Your task to perform on an android device: turn on showing notifications on the lock screen Image 0: 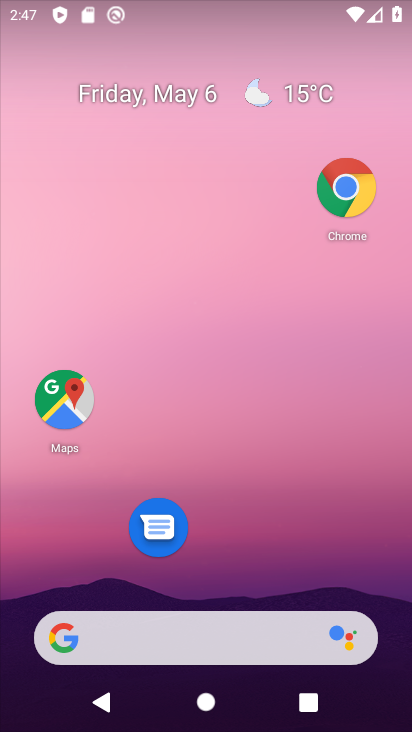
Step 0: drag from (286, 552) to (280, 51)
Your task to perform on an android device: turn on showing notifications on the lock screen Image 1: 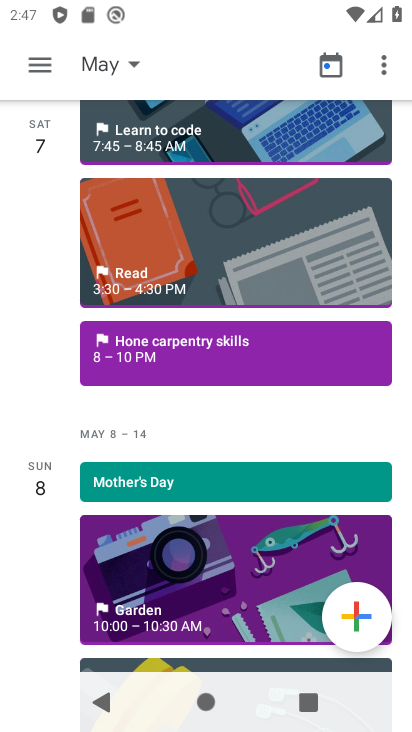
Step 1: press home button
Your task to perform on an android device: turn on showing notifications on the lock screen Image 2: 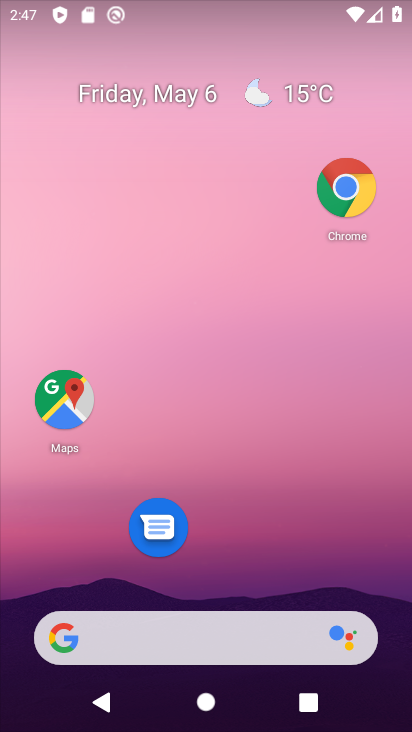
Step 2: click (286, 44)
Your task to perform on an android device: turn on showing notifications on the lock screen Image 3: 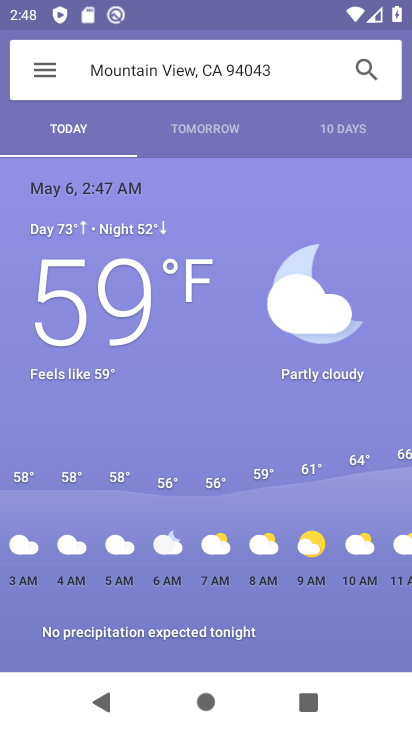
Step 3: press home button
Your task to perform on an android device: turn on showing notifications on the lock screen Image 4: 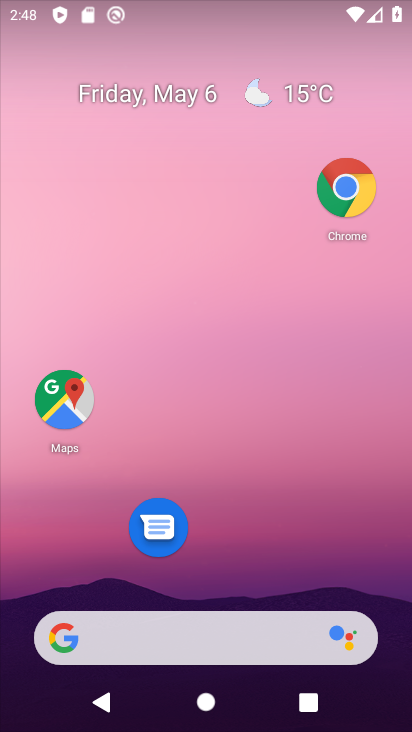
Step 4: drag from (268, 132) to (262, 38)
Your task to perform on an android device: turn on showing notifications on the lock screen Image 5: 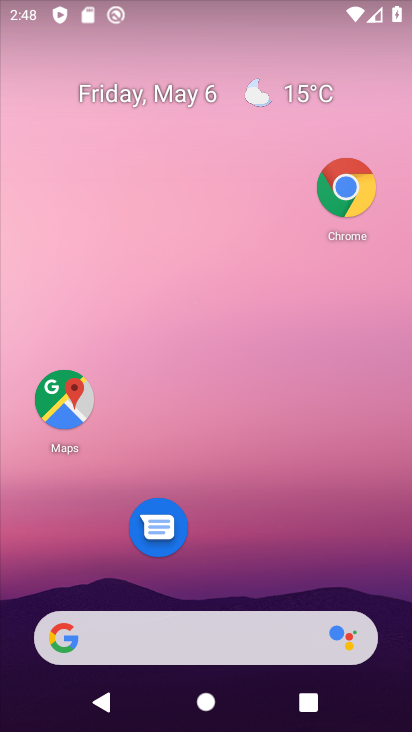
Step 5: drag from (176, 200) to (257, 4)
Your task to perform on an android device: turn on showing notifications on the lock screen Image 6: 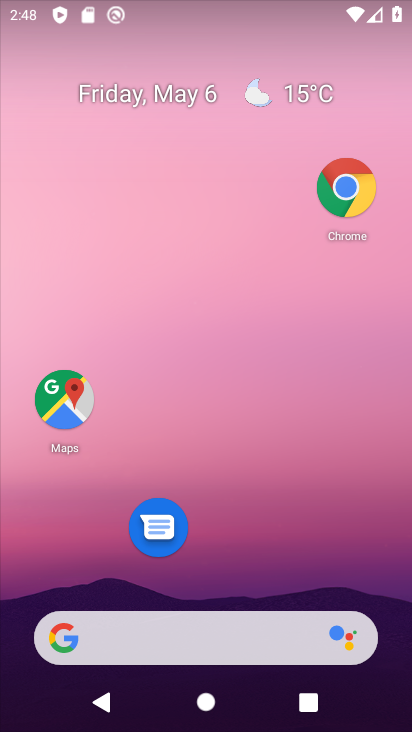
Step 6: click (219, 1)
Your task to perform on an android device: turn on showing notifications on the lock screen Image 7: 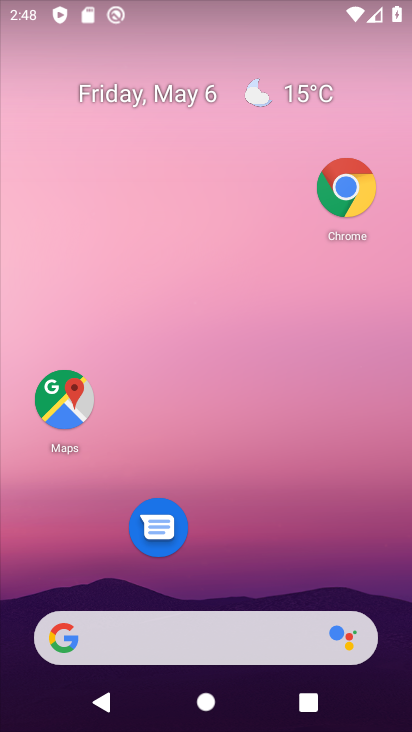
Step 7: drag from (244, 502) to (299, 12)
Your task to perform on an android device: turn on showing notifications on the lock screen Image 8: 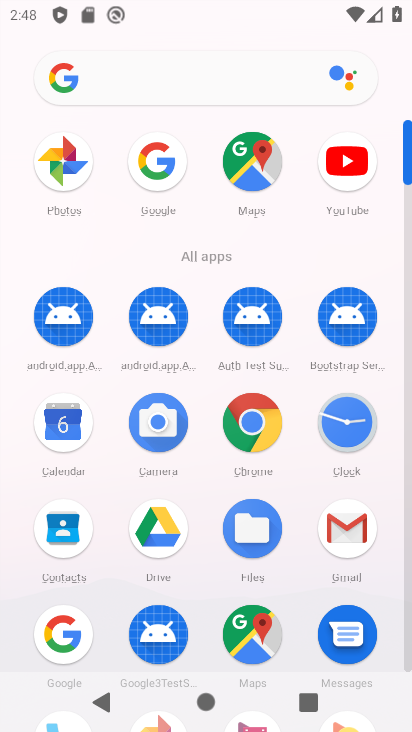
Step 8: drag from (288, 627) to (290, 199)
Your task to perform on an android device: turn on showing notifications on the lock screen Image 9: 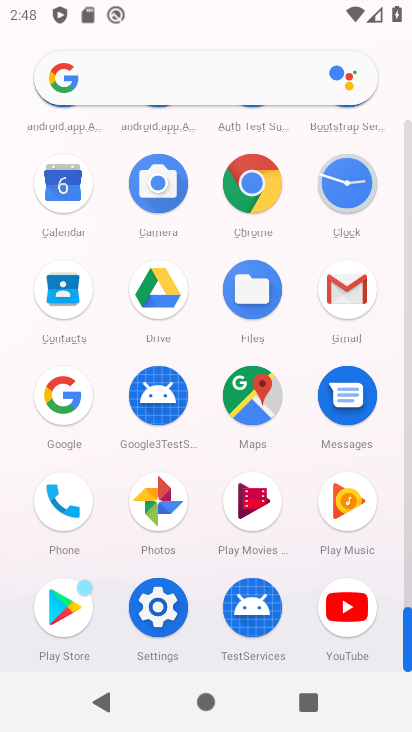
Step 9: click (165, 633)
Your task to perform on an android device: turn on showing notifications on the lock screen Image 10: 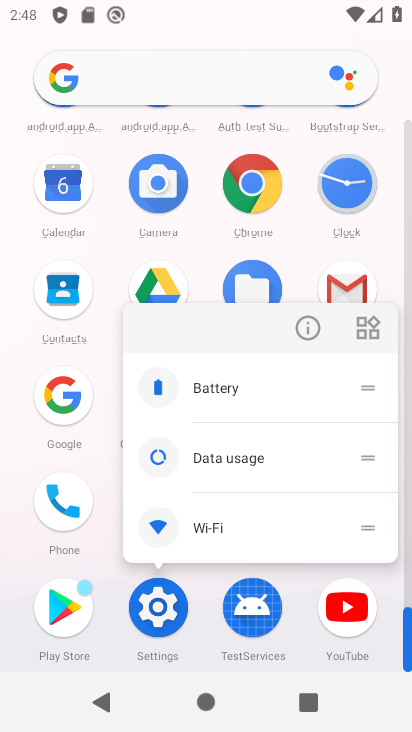
Step 10: click (152, 611)
Your task to perform on an android device: turn on showing notifications on the lock screen Image 11: 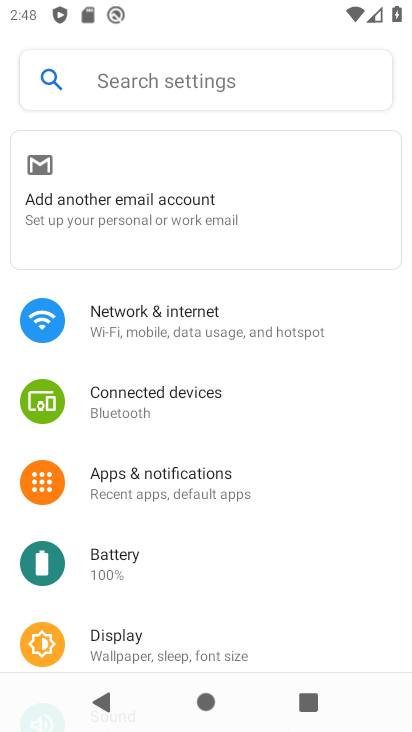
Step 11: click (130, 479)
Your task to perform on an android device: turn on showing notifications on the lock screen Image 12: 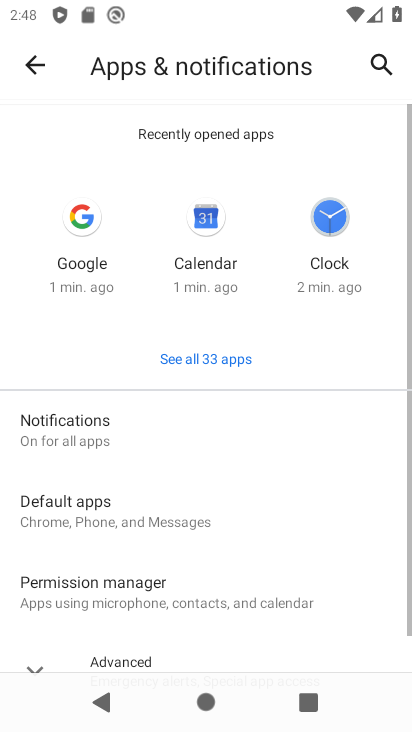
Step 12: click (86, 438)
Your task to perform on an android device: turn on showing notifications on the lock screen Image 13: 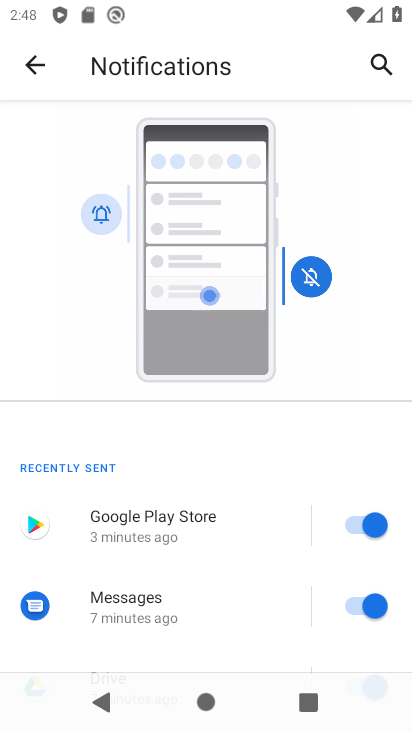
Step 13: drag from (241, 621) to (279, 210)
Your task to perform on an android device: turn on showing notifications on the lock screen Image 14: 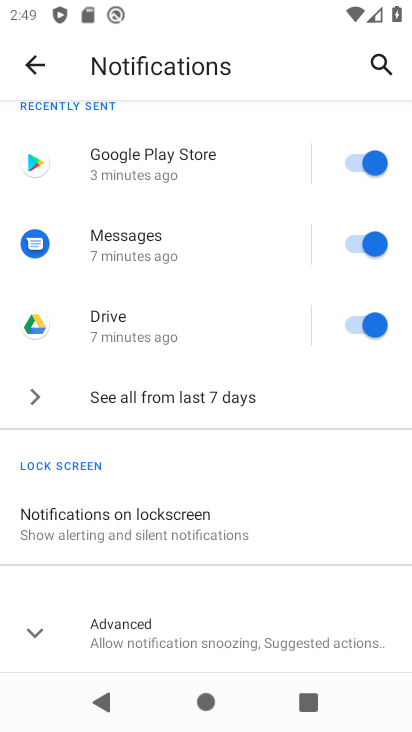
Step 14: click (123, 544)
Your task to perform on an android device: turn on showing notifications on the lock screen Image 15: 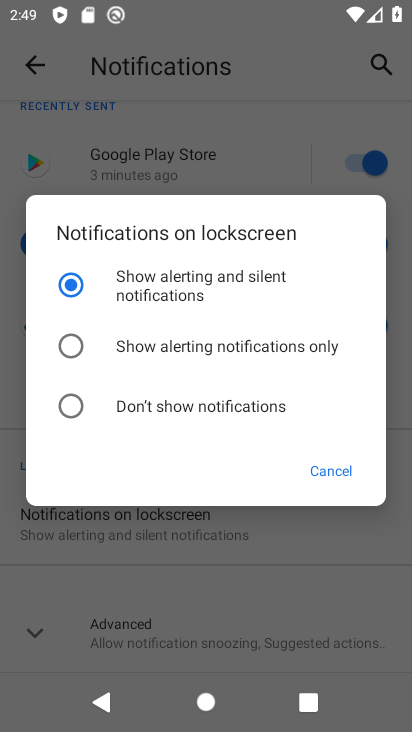
Step 15: click (65, 410)
Your task to perform on an android device: turn on showing notifications on the lock screen Image 16: 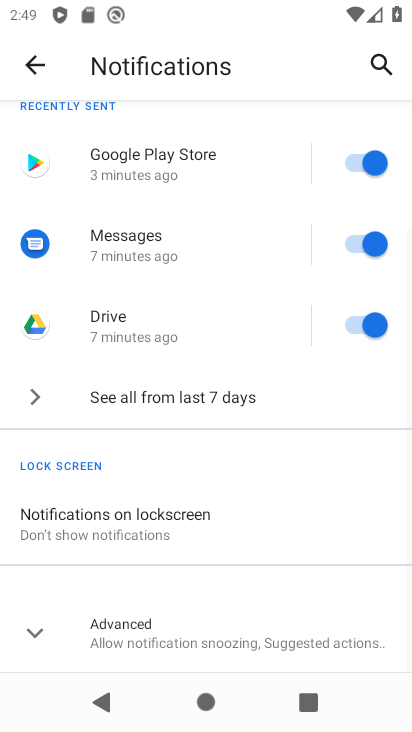
Step 16: click (153, 540)
Your task to perform on an android device: turn on showing notifications on the lock screen Image 17: 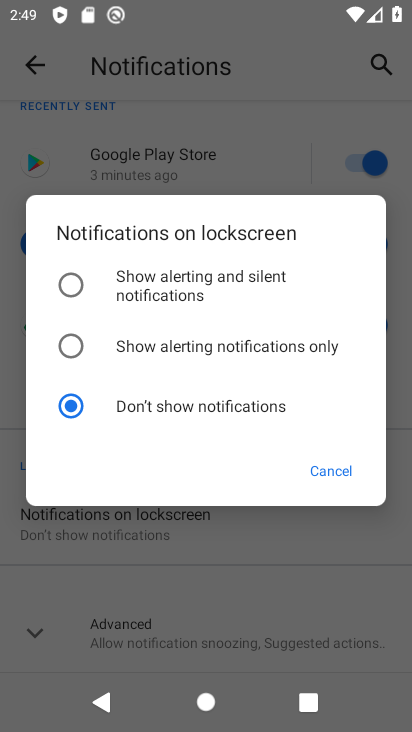
Step 17: click (228, 297)
Your task to perform on an android device: turn on showing notifications on the lock screen Image 18: 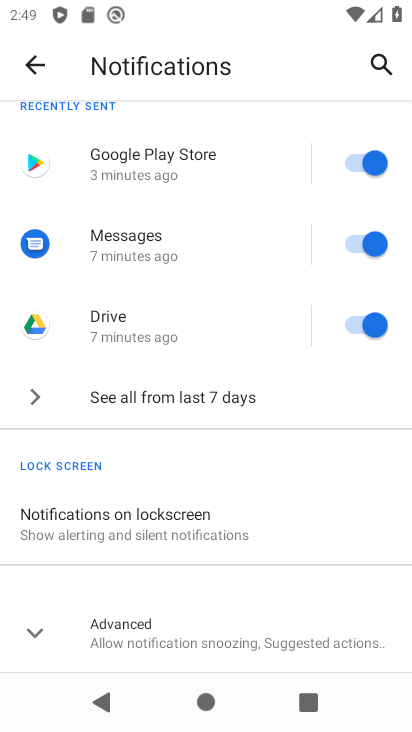
Step 18: task complete